Your task to perform on an android device: Search for vintage wall art on Etsy. Image 0: 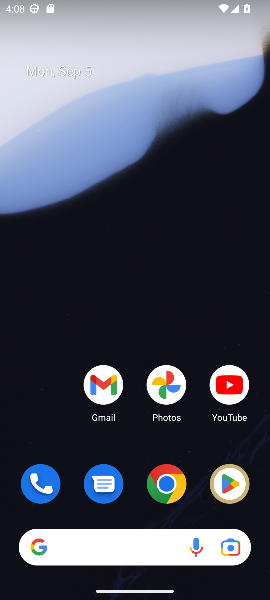
Step 0: click (173, 486)
Your task to perform on an android device: Search for vintage wall art on Etsy. Image 1: 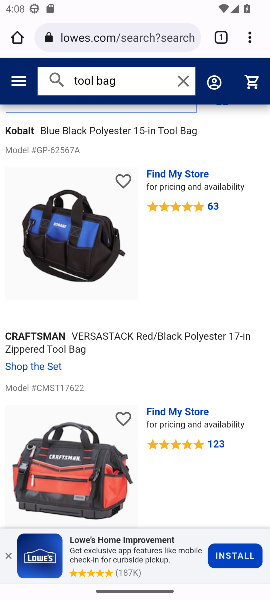
Step 1: click (166, 37)
Your task to perform on an android device: Search for vintage wall art on Etsy. Image 2: 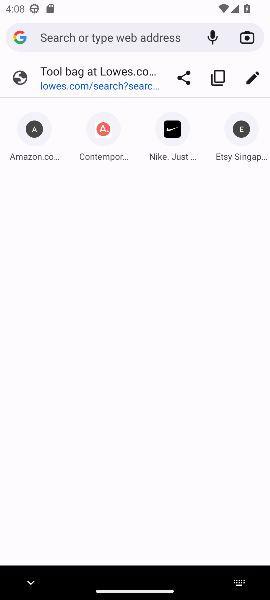
Step 2: type "Etsy"
Your task to perform on an android device: Search for vintage wall art on Etsy. Image 3: 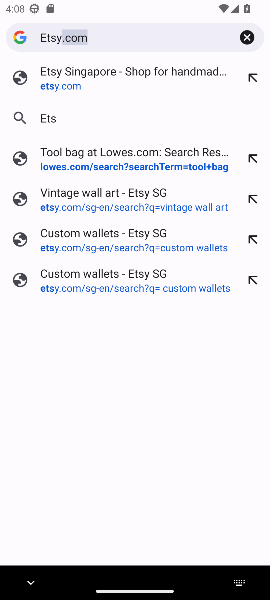
Step 3: press enter
Your task to perform on an android device: Search for vintage wall art on Etsy. Image 4: 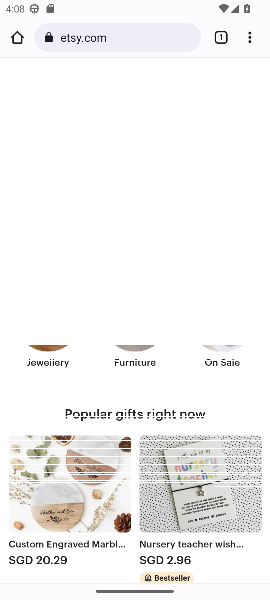
Step 4: click (127, 81)
Your task to perform on an android device: Search for vintage wall art on Etsy. Image 5: 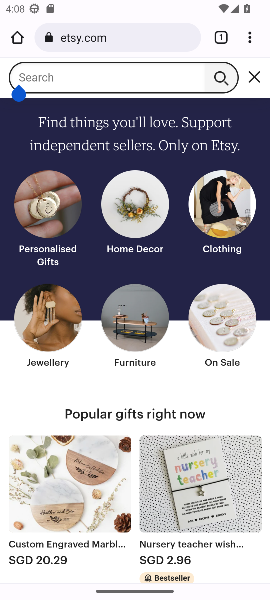
Step 5: click (127, 80)
Your task to perform on an android device: Search for vintage wall art on Etsy. Image 6: 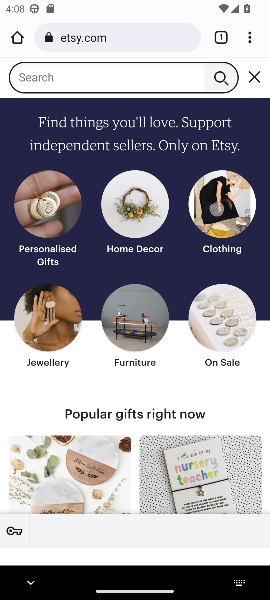
Step 6: click (128, 76)
Your task to perform on an android device: Search for vintage wall art on Etsy. Image 7: 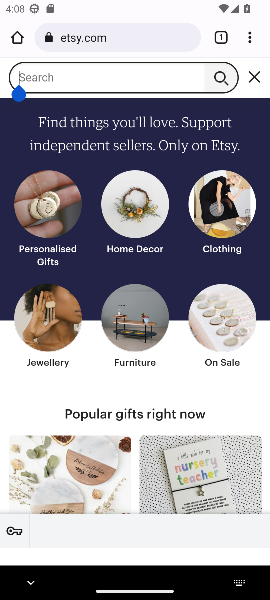
Step 7: type "vintage wall art"
Your task to perform on an android device: Search for vintage wall art on Etsy. Image 8: 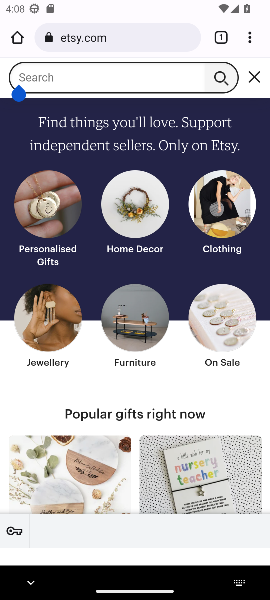
Step 8: press enter
Your task to perform on an android device: Search for vintage wall art on Etsy. Image 9: 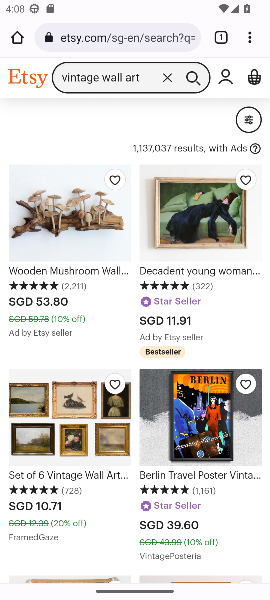
Step 9: task complete